Your task to perform on an android device: toggle javascript in the chrome app Image 0: 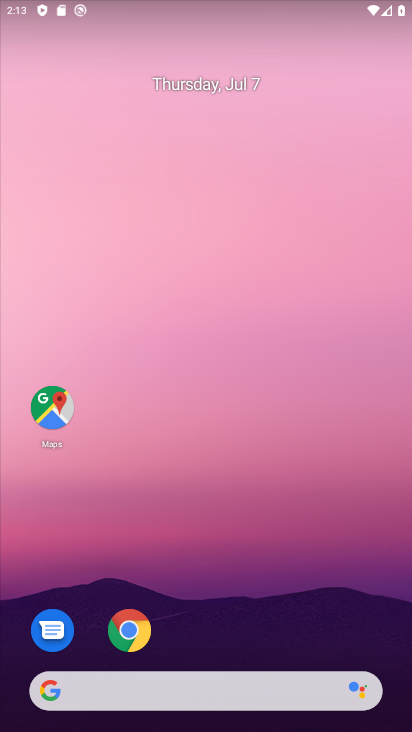
Step 0: click (114, 627)
Your task to perform on an android device: toggle javascript in the chrome app Image 1: 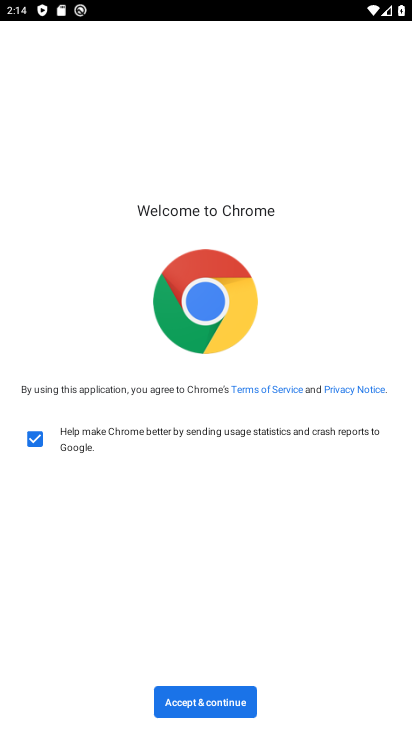
Step 1: click (182, 691)
Your task to perform on an android device: toggle javascript in the chrome app Image 2: 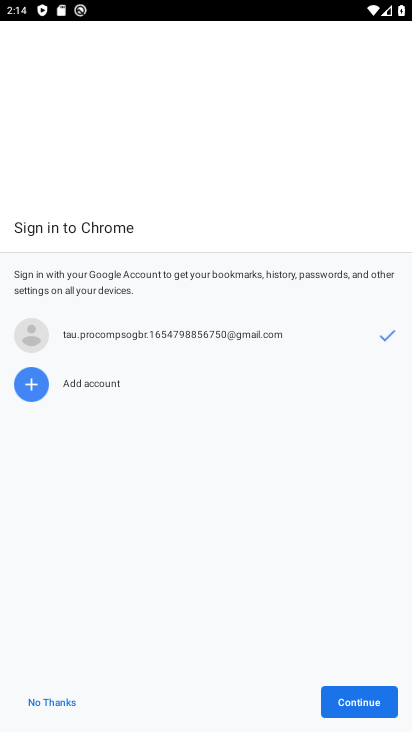
Step 2: click (343, 699)
Your task to perform on an android device: toggle javascript in the chrome app Image 3: 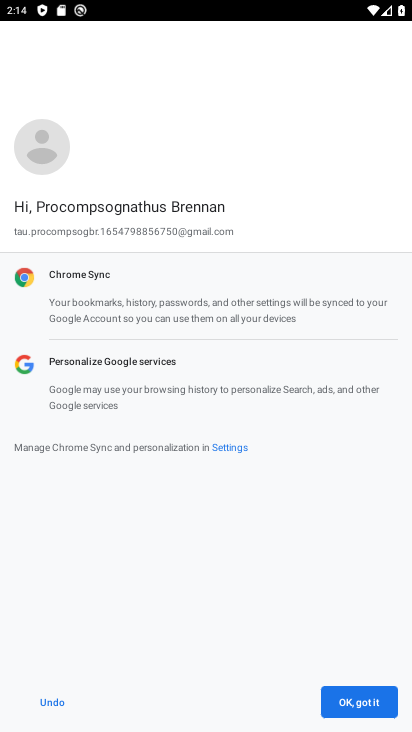
Step 3: click (374, 706)
Your task to perform on an android device: toggle javascript in the chrome app Image 4: 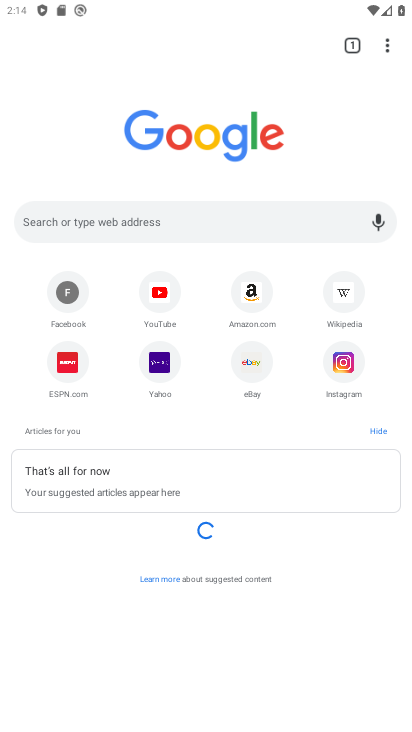
Step 4: drag from (385, 41) to (274, 376)
Your task to perform on an android device: toggle javascript in the chrome app Image 5: 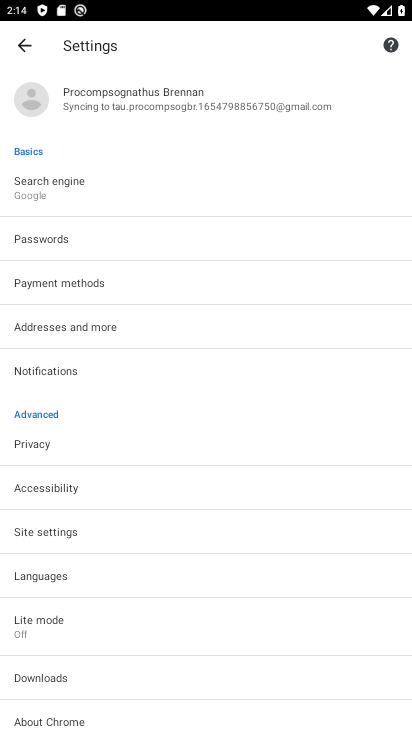
Step 5: click (92, 539)
Your task to perform on an android device: toggle javascript in the chrome app Image 6: 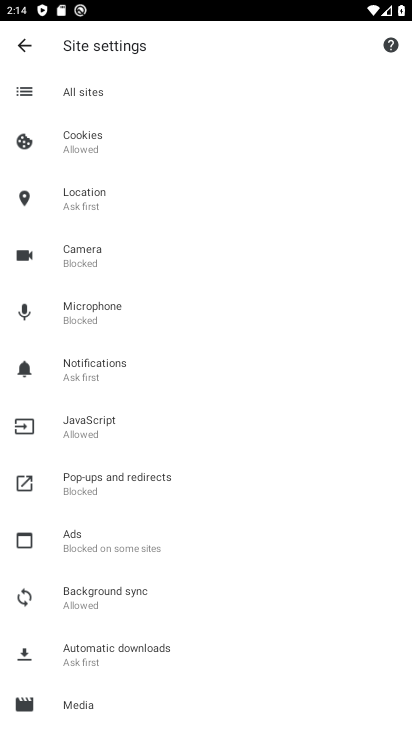
Step 6: click (80, 436)
Your task to perform on an android device: toggle javascript in the chrome app Image 7: 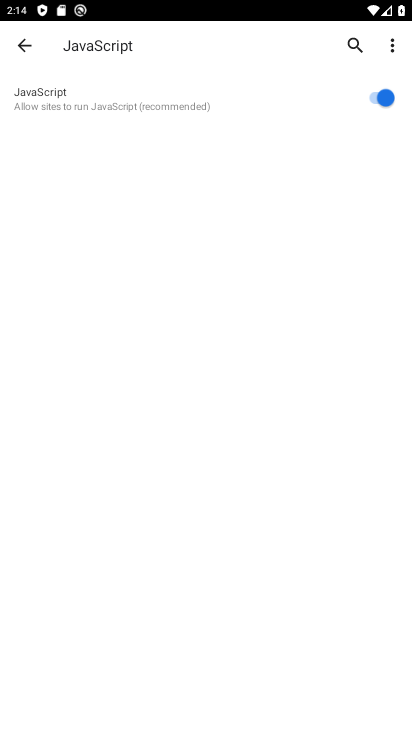
Step 7: click (375, 94)
Your task to perform on an android device: toggle javascript in the chrome app Image 8: 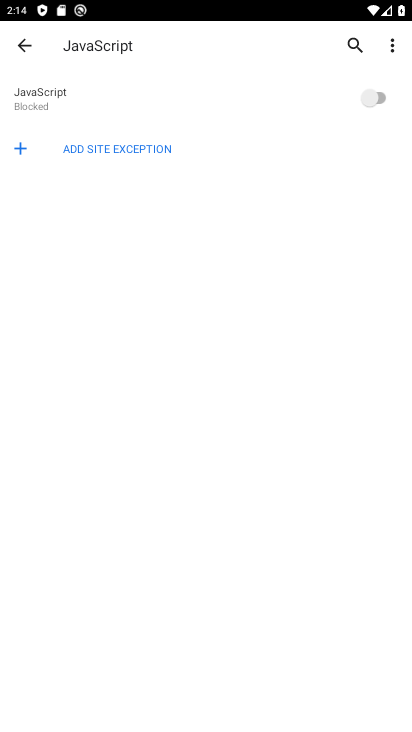
Step 8: task complete